Your task to perform on an android device: set the stopwatch Image 0: 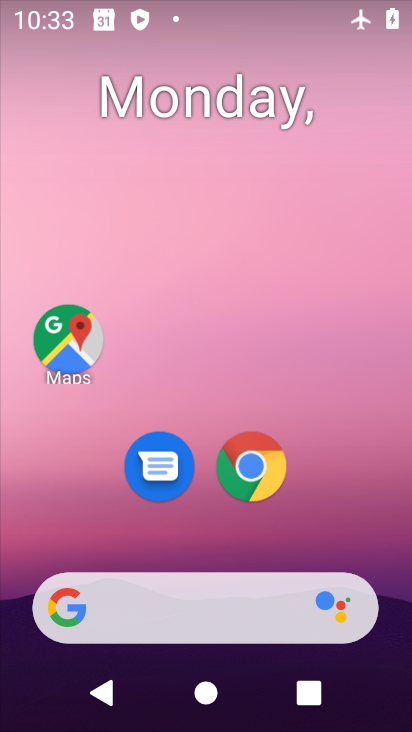
Step 0: drag from (231, 565) to (198, 141)
Your task to perform on an android device: set the stopwatch Image 1: 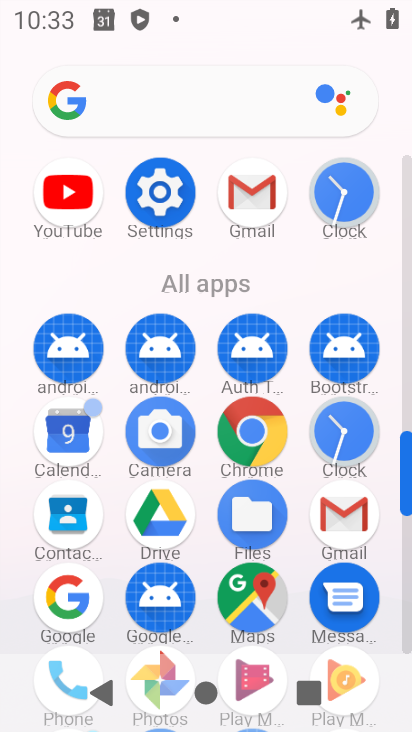
Step 1: click (174, 215)
Your task to perform on an android device: set the stopwatch Image 2: 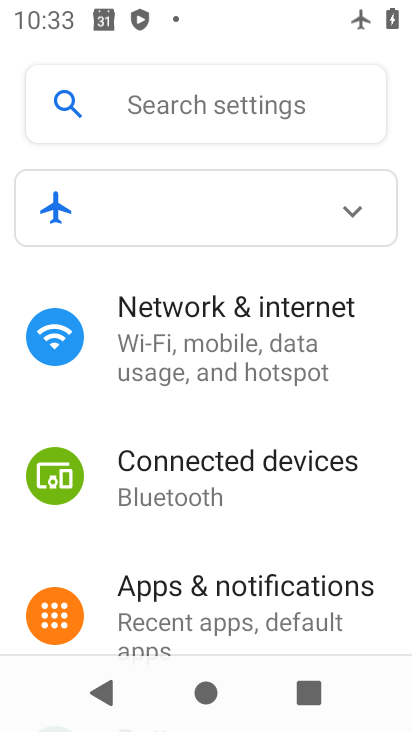
Step 2: press home button
Your task to perform on an android device: set the stopwatch Image 3: 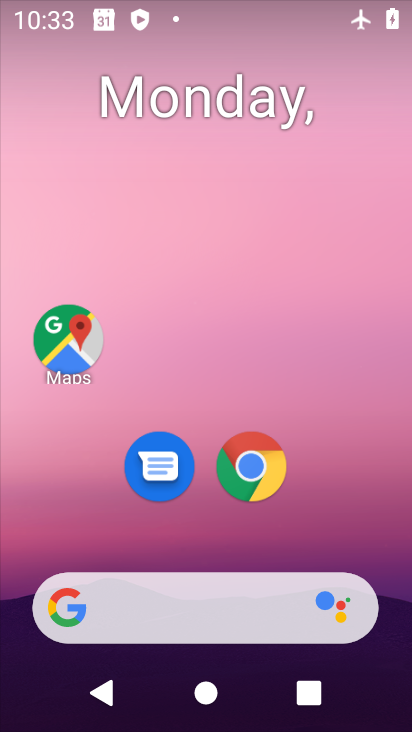
Step 3: drag from (223, 485) to (219, 70)
Your task to perform on an android device: set the stopwatch Image 4: 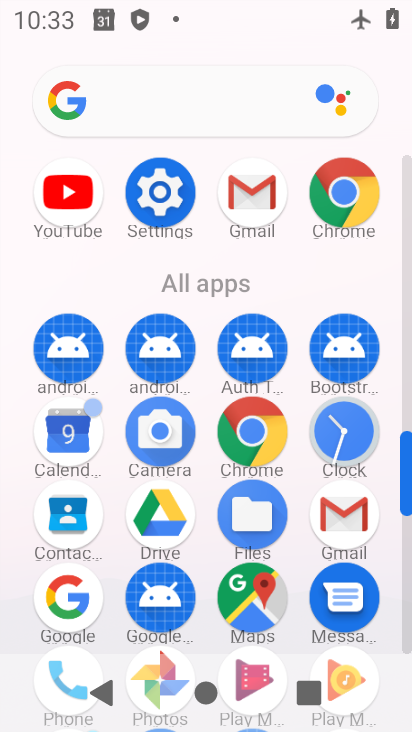
Step 4: click (339, 422)
Your task to perform on an android device: set the stopwatch Image 5: 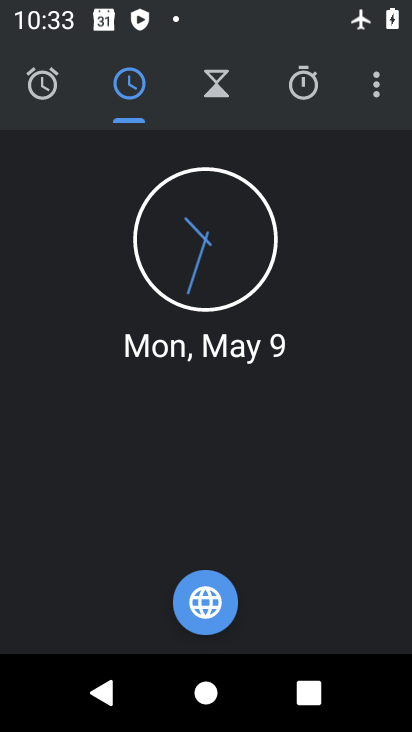
Step 5: click (321, 93)
Your task to perform on an android device: set the stopwatch Image 6: 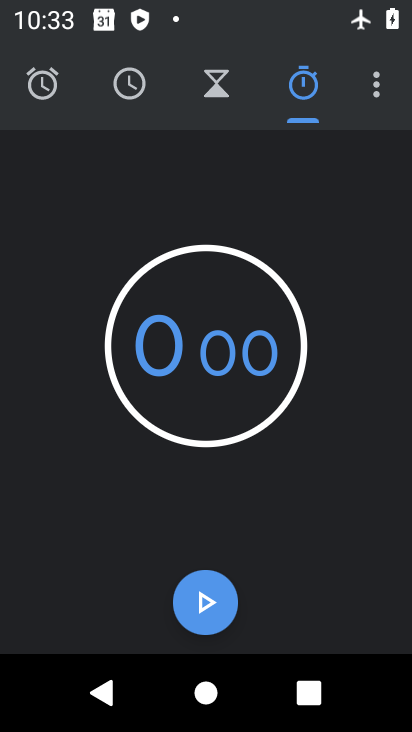
Step 6: click (216, 602)
Your task to perform on an android device: set the stopwatch Image 7: 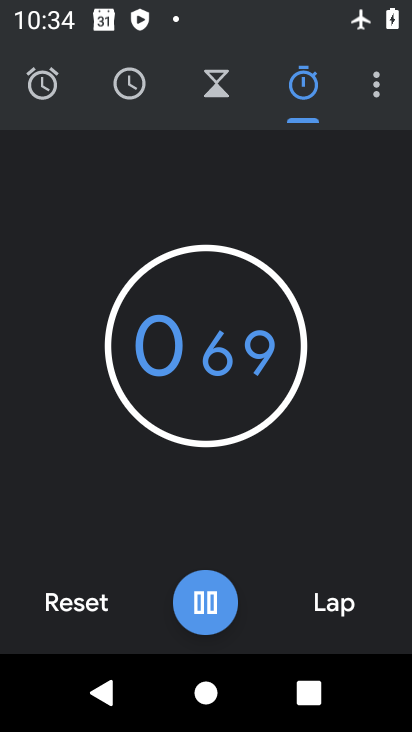
Step 7: task complete